Your task to perform on an android device: change notifications settings Image 0: 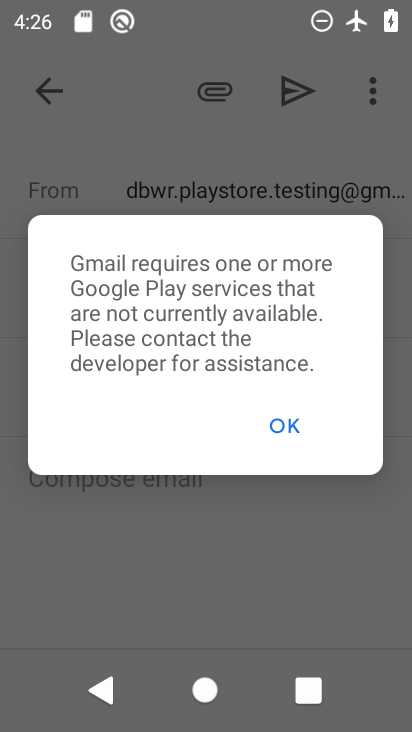
Step 0: drag from (270, 528) to (261, 480)
Your task to perform on an android device: change notifications settings Image 1: 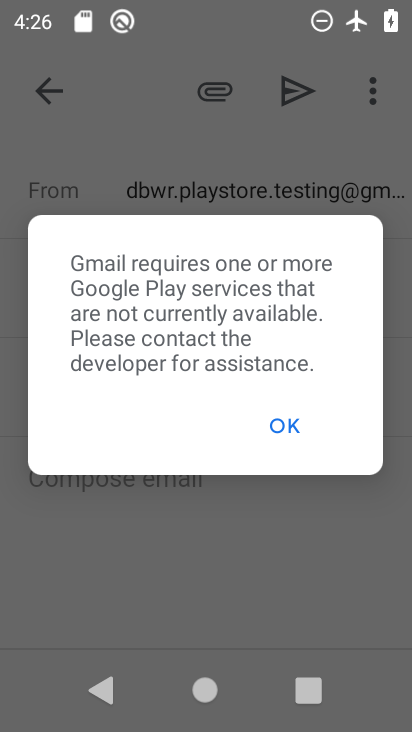
Step 1: press home button
Your task to perform on an android device: change notifications settings Image 2: 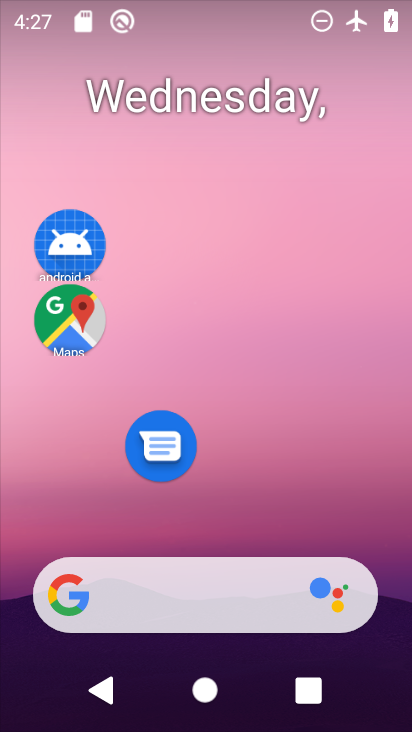
Step 2: drag from (265, 512) to (225, 5)
Your task to perform on an android device: change notifications settings Image 3: 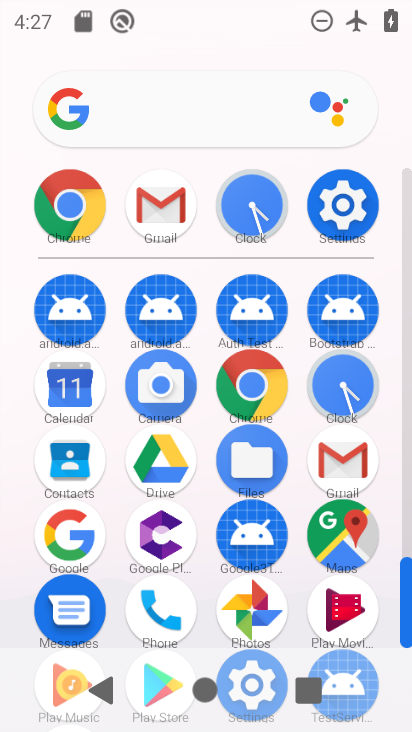
Step 3: click (256, 393)
Your task to perform on an android device: change notifications settings Image 4: 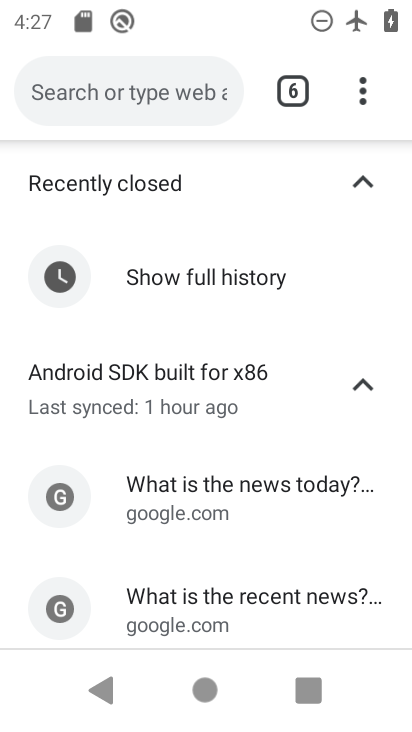
Step 4: press home button
Your task to perform on an android device: change notifications settings Image 5: 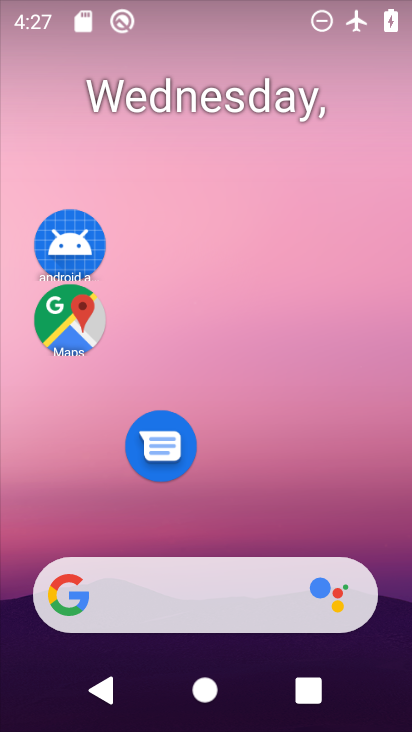
Step 5: drag from (331, 468) to (326, 93)
Your task to perform on an android device: change notifications settings Image 6: 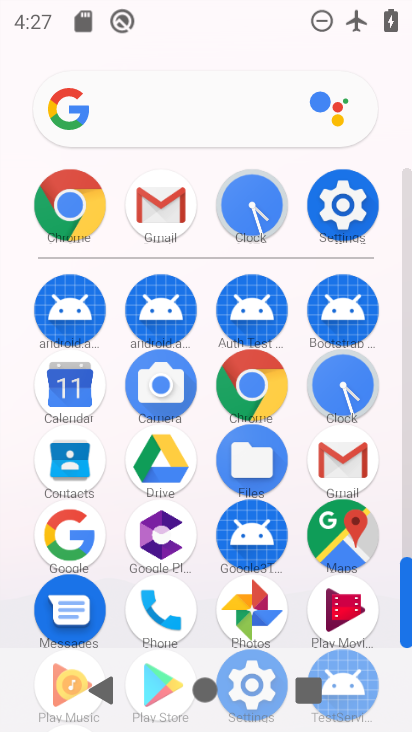
Step 6: click (329, 212)
Your task to perform on an android device: change notifications settings Image 7: 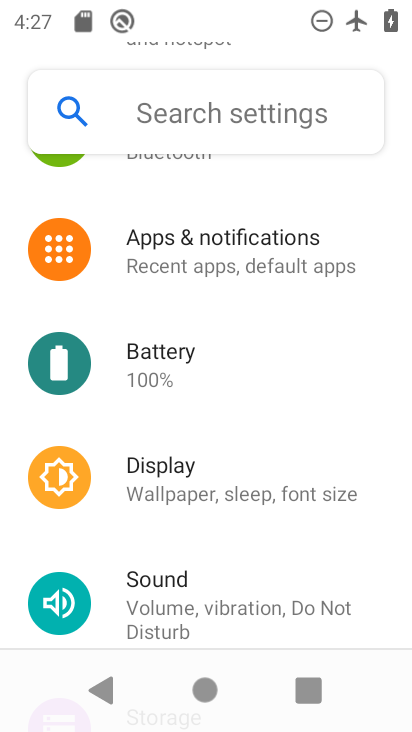
Step 7: click (230, 303)
Your task to perform on an android device: change notifications settings Image 8: 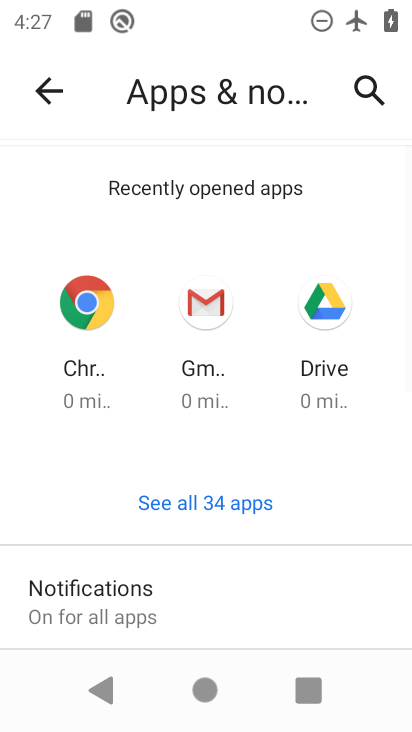
Step 8: click (209, 563)
Your task to perform on an android device: change notifications settings Image 9: 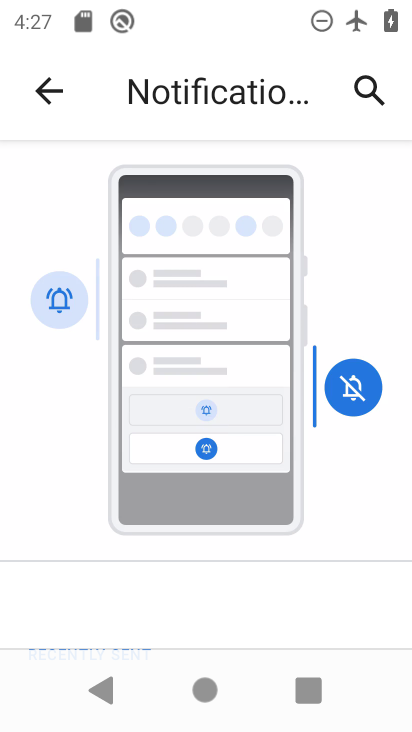
Step 9: task complete